Your task to perform on an android device: open sync settings in chrome Image 0: 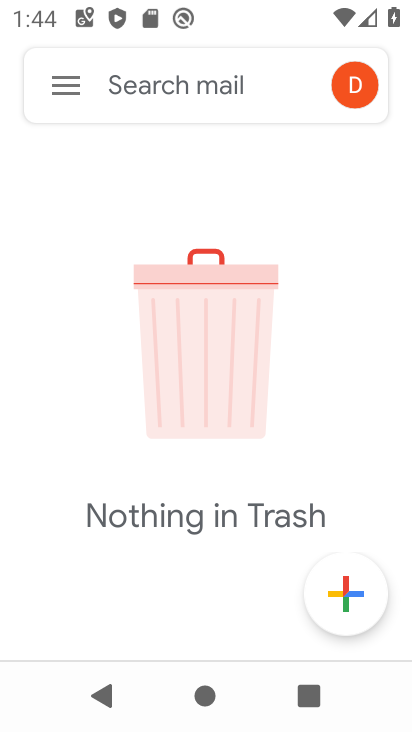
Step 0: press home button
Your task to perform on an android device: open sync settings in chrome Image 1: 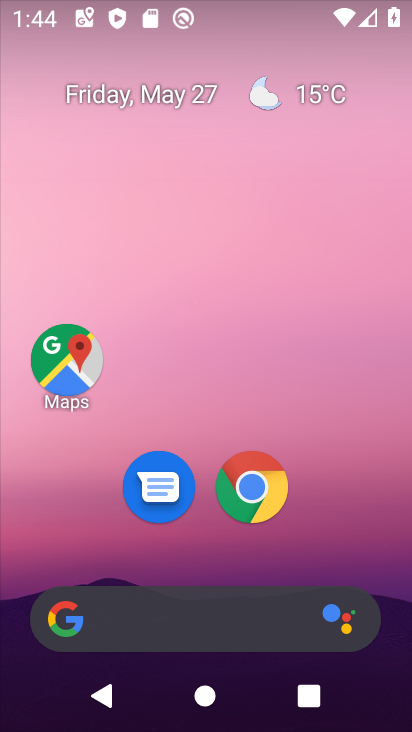
Step 1: click (245, 488)
Your task to perform on an android device: open sync settings in chrome Image 2: 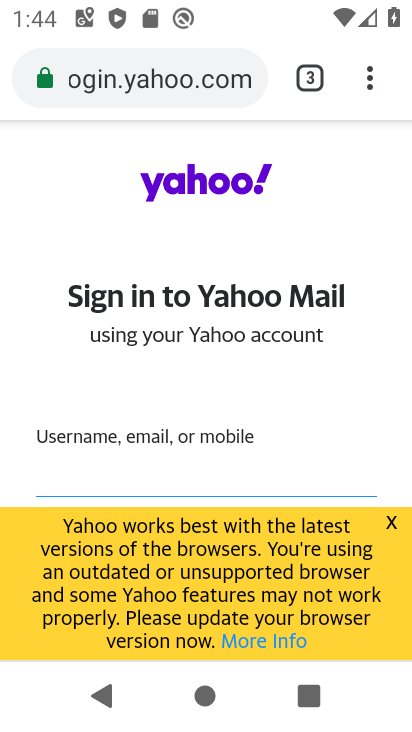
Step 2: click (386, 81)
Your task to perform on an android device: open sync settings in chrome Image 3: 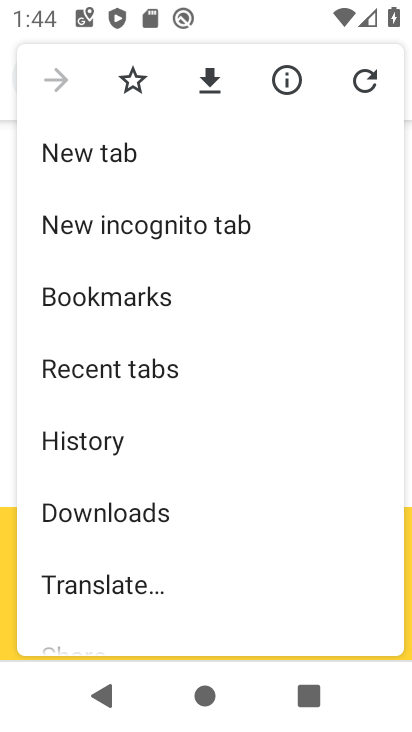
Step 3: drag from (101, 608) to (177, 128)
Your task to perform on an android device: open sync settings in chrome Image 4: 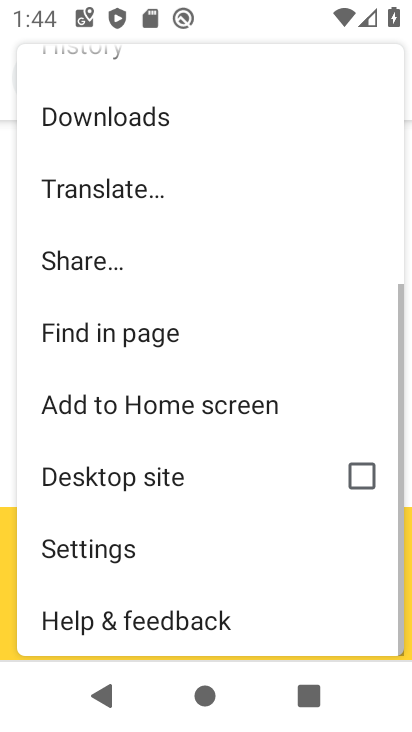
Step 4: click (156, 569)
Your task to perform on an android device: open sync settings in chrome Image 5: 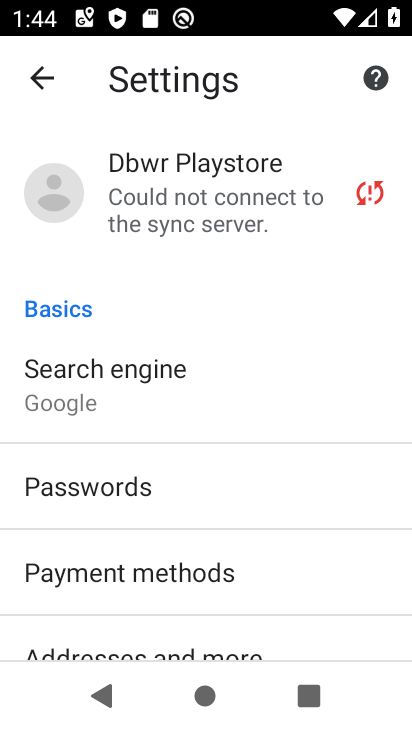
Step 5: click (268, 215)
Your task to perform on an android device: open sync settings in chrome Image 6: 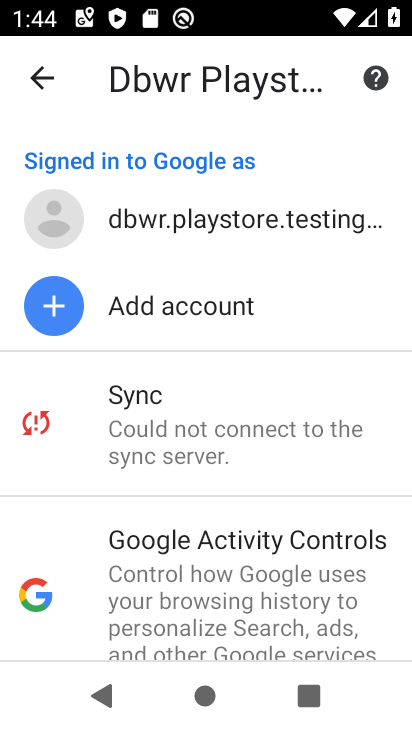
Step 6: click (198, 389)
Your task to perform on an android device: open sync settings in chrome Image 7: 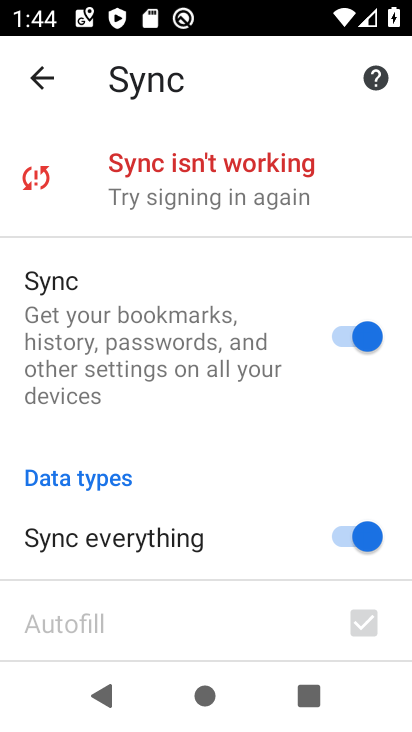
Step 7: task complete